Your task to perform on an android device: Go to internet settings Image 0: 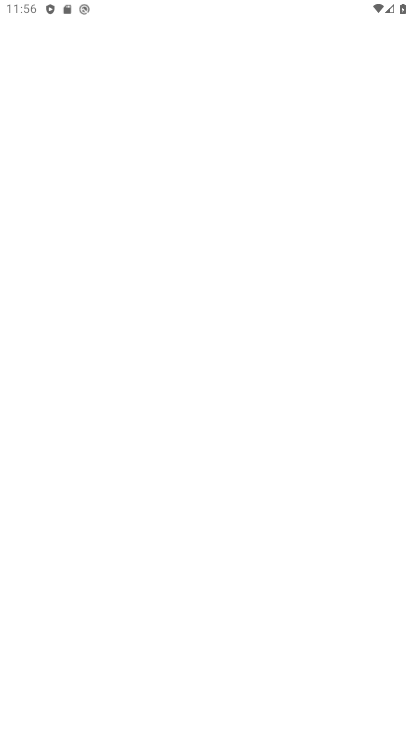
Step 0: press home button
Your task to perform on an android device: Go to internet settings Image 1: 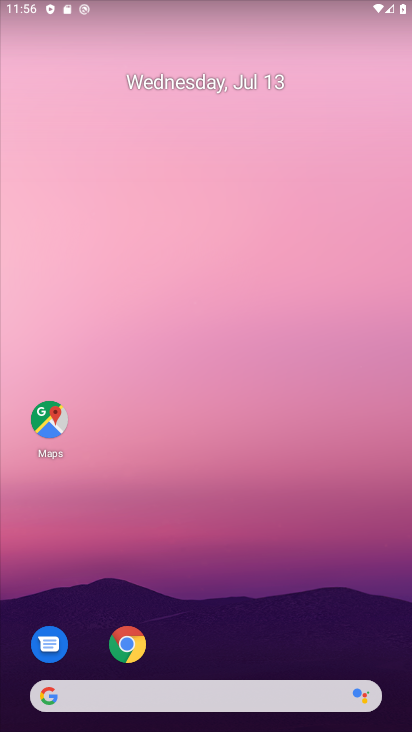
Step 1: drag from (187, 674) to (149, 275)
Your task to perform on an android device: Go to internet settings Image 2: 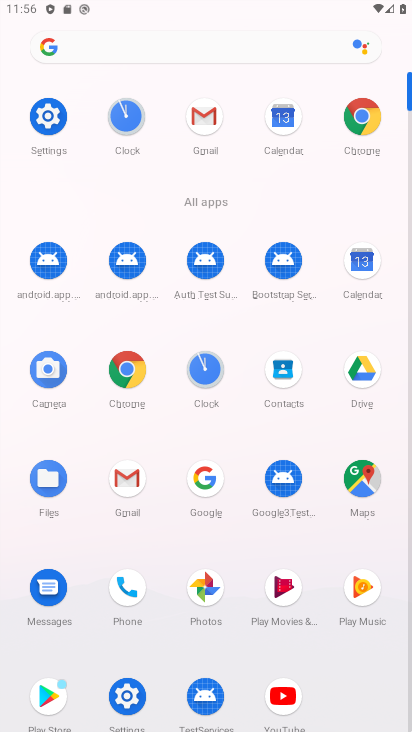
Step 2: click (46, 124)
Your task to perform on an android device: Go to internet settings Image 3: 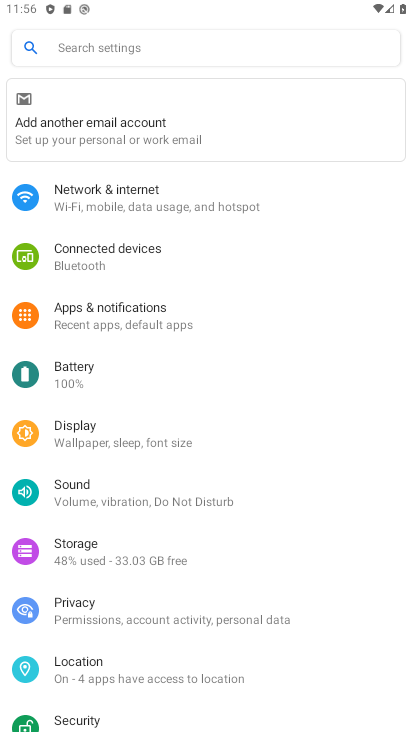
Step 3: click (57, 189)
Your task to perform on an android device: Go to internet settings Image 4: 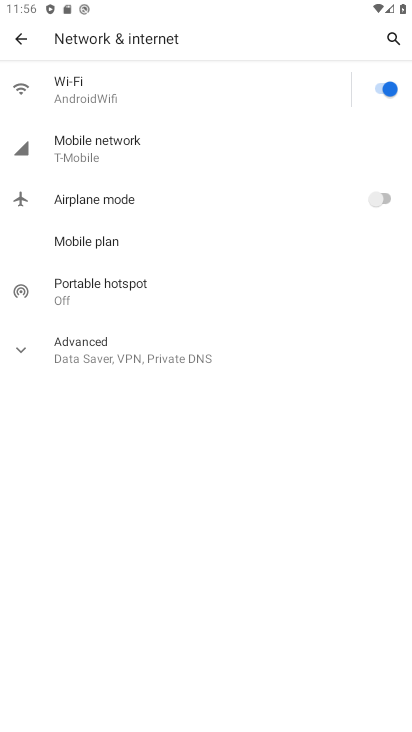
Step 4: click (69, 154)
Your task to perform on an android device: Go to internet settings Image 5: 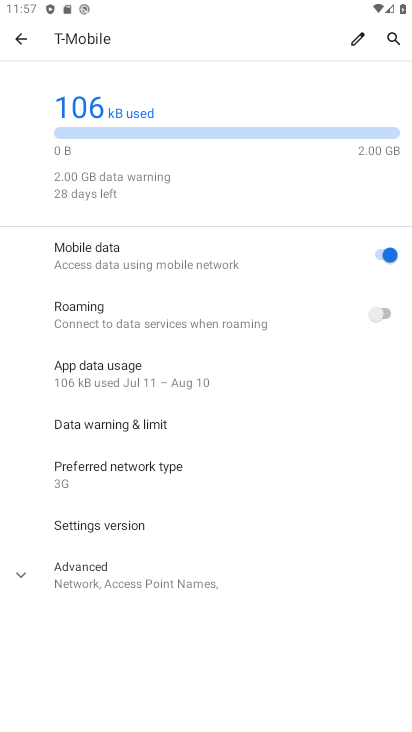
Step 5: task complete